Your task to perform on an android device: Go to ESPN.com Image 0: 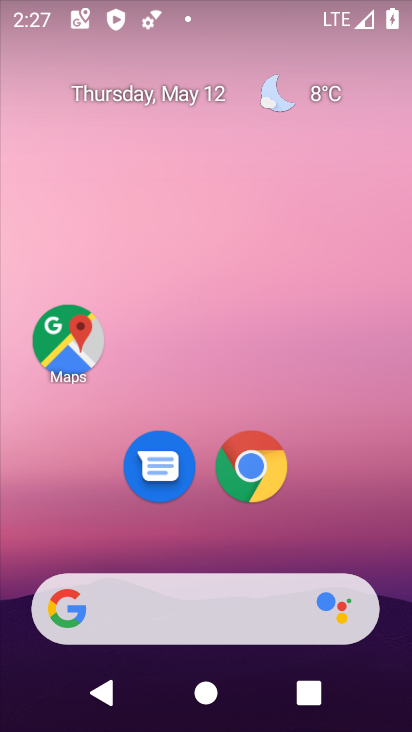
Step 0: click (235, 473)
Your task to perform on an android device: Go to ESPN.com Image 1: 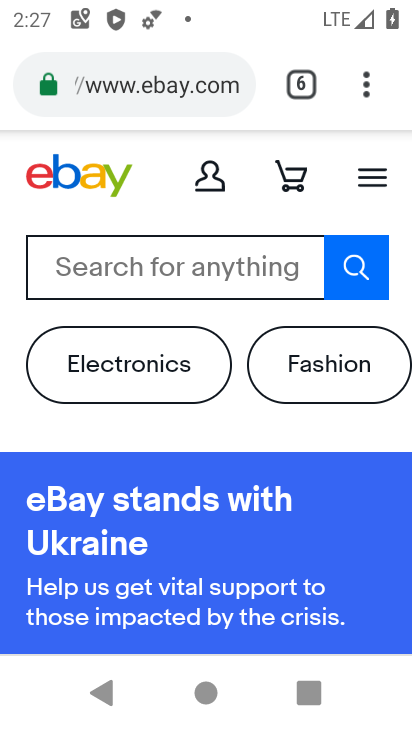
Step 1: click (300, 84)
Your task to perform on an android device: Go to ESPN.com Image 2: 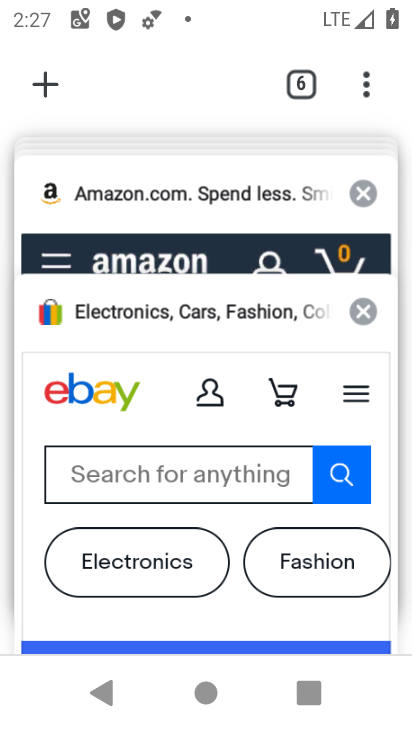
Step 2: drag from (176, 234) to (116, 574)
Your task to perform on an android device: Go to ESPN.com Image 3: 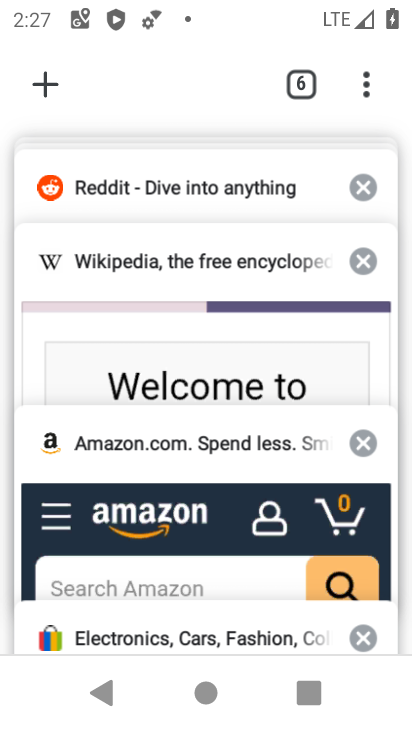
Step 3: drag from (121, 269) to (112, 508)
Your task to perform on an android device: Go to ESPN.com Image 4: 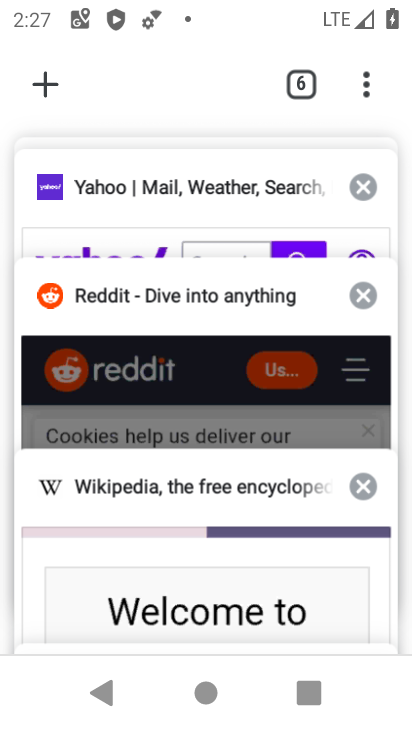
Step 4: drag from (169, 168) to (142, 466)
Your task to perform on an android device: Go to ESPN.com Image 5: 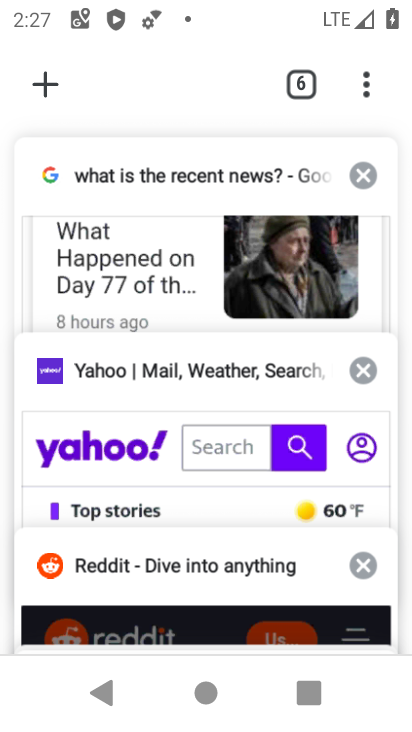
Step 5: click (46, 88)
Your task to perform on an android device: Go to ESPN.com Image 6: 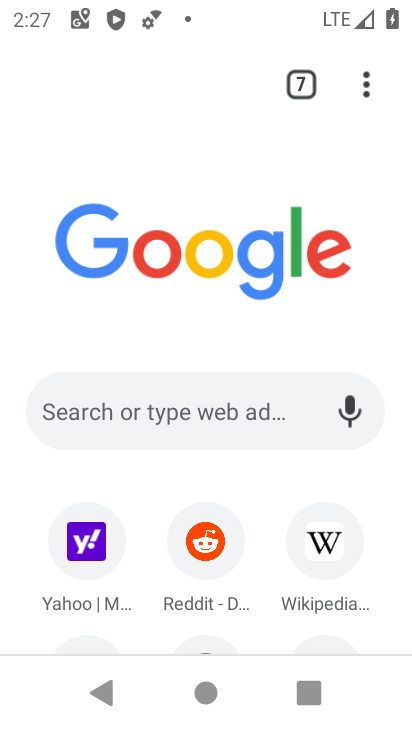
Step 6: drag from (192, 509) to (186, 242)
Your task to perform on an android device: Go to ESPN.com Image 7: 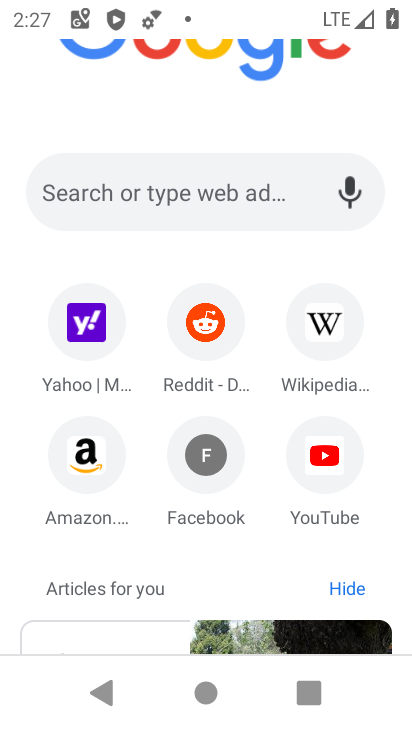
Step 7: click (204, 202)
Your task to perform on an android device: Go to ESPN.com Image 8: 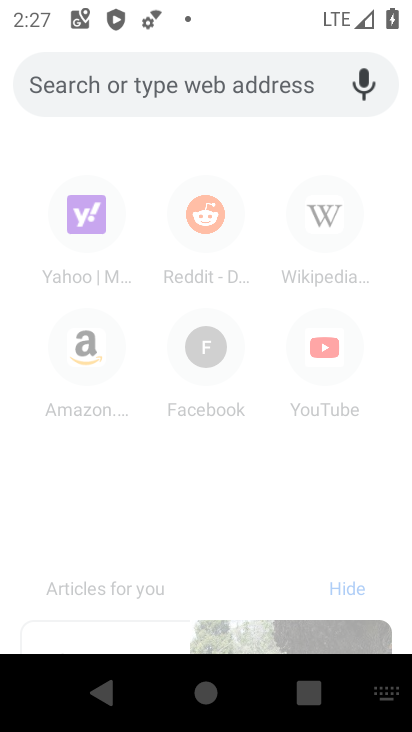
Step 8: type "espn.com"
Your task to perform on an android device: Go to ESPN.com Image 9: 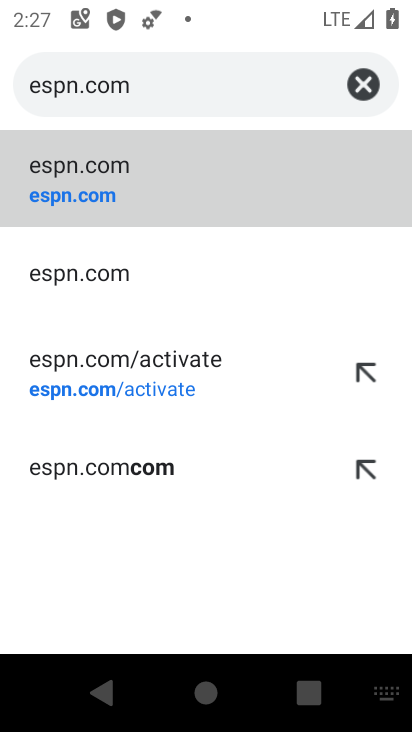
Step 9: click (58, 179)
Your task to perform on an android device: Go to ESPN.com Image 10: 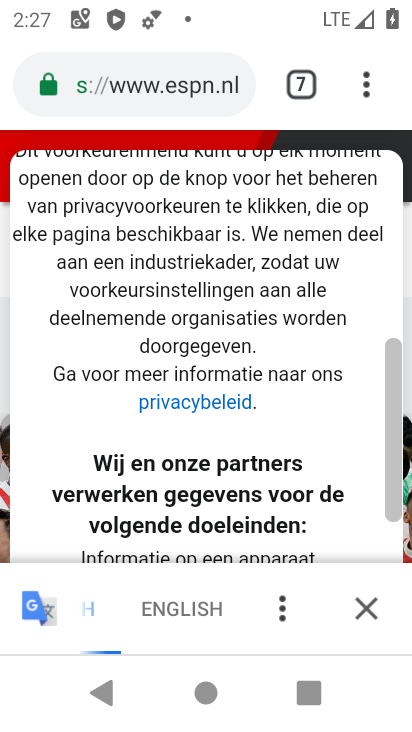
Step 10: drag from (194, 456) to (196, 234)
Your task to perform on an android device: Go to ESPN.com Image 11: 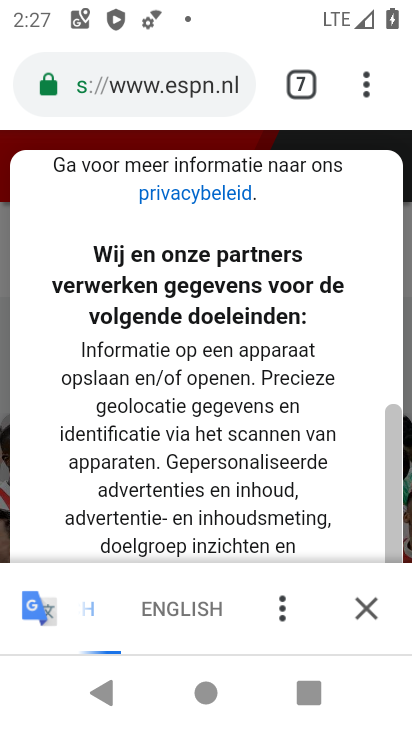
Step 11: drag from (235, 482) to (243, 229)
Your task to perform on an android device: Go to ESPN.com Image 12: 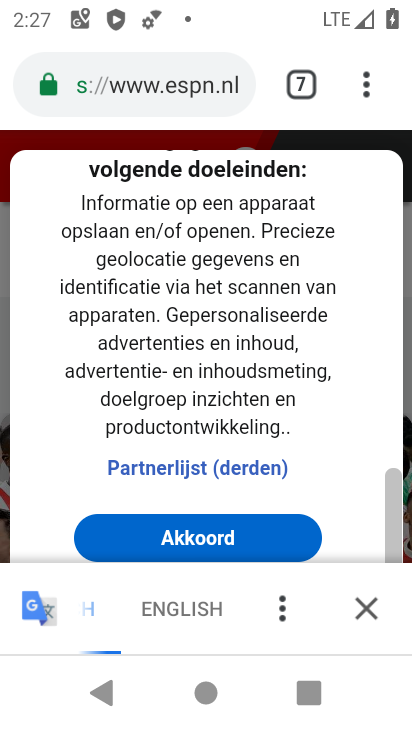
Step 12: click (199, 537)
Your task to perform on an android device: Go to ESPN.com Image 13: 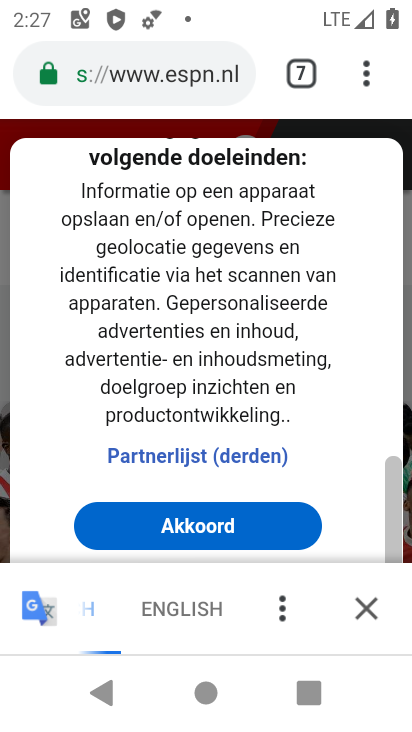
Step 13: click (186, 559)
Your task to perform on an android device: Go to ESPN.com Image 14: 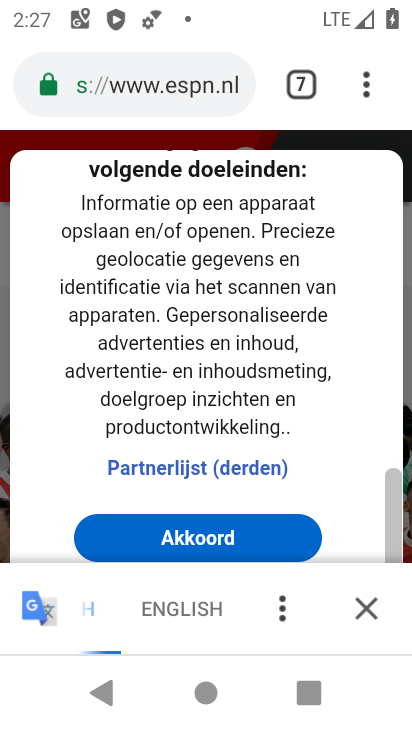
Step 14: click (186, 539)
Your task to perform on an android device: Go to ESPN.com Image 15: 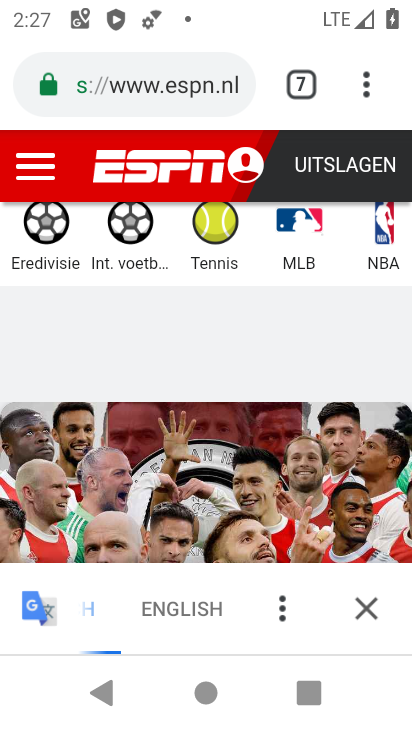
Step 15: task complete